Your task to perform on an android device: uninstall "Duolingo: language lessons" Image 0: 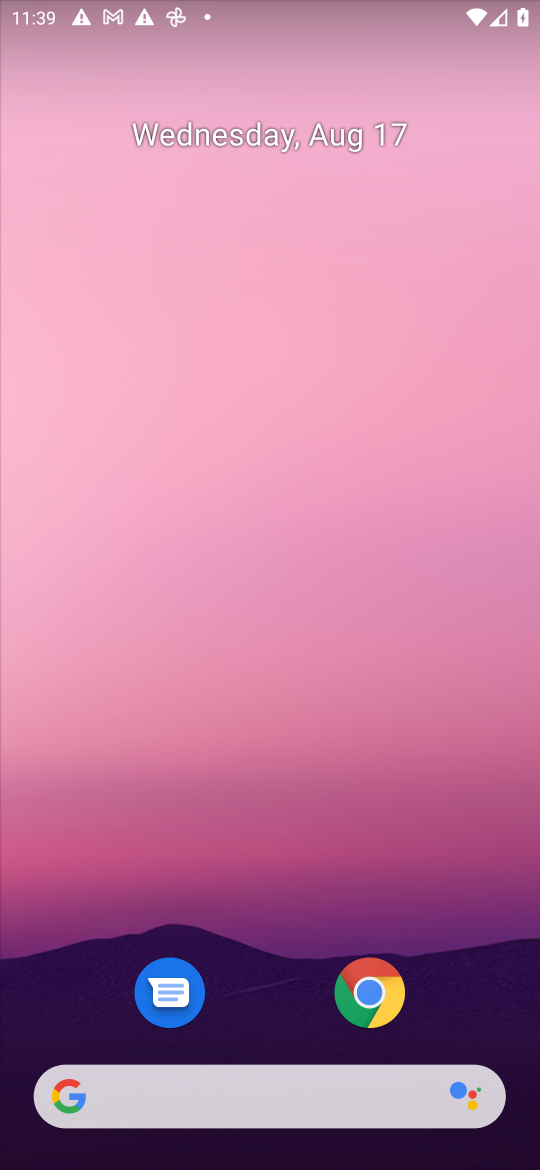
Step 0: drag from (470, 993) to (172, 71)
Your task to perform on an android device: uninstall "Duolingo: language lessons" Image 1: 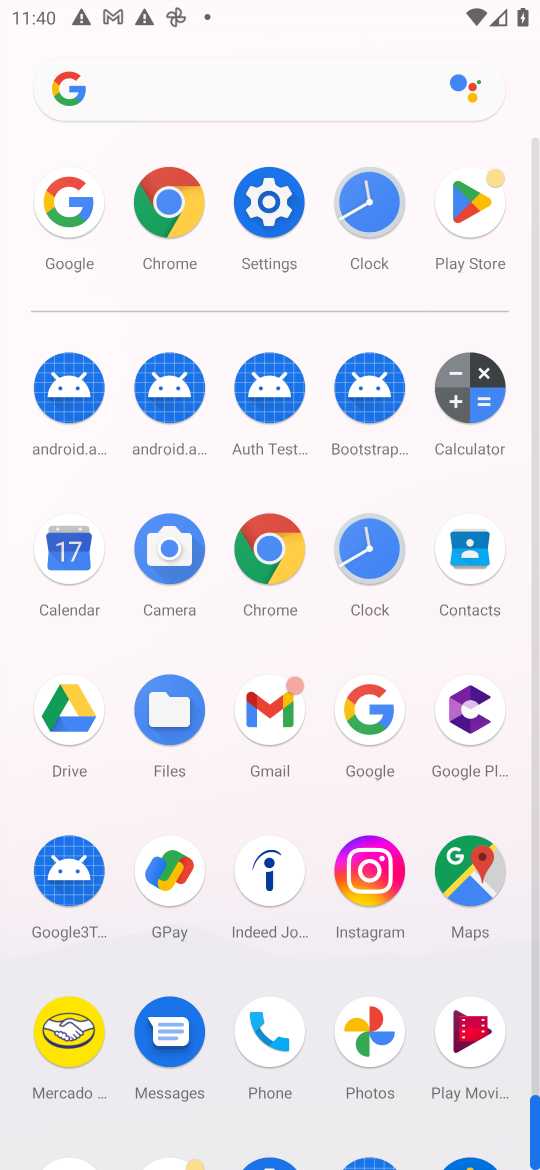
Step 1: click (484, 214)
Your task to perform on an android device: uninstall "Duolingo: language lessons" Image 2: 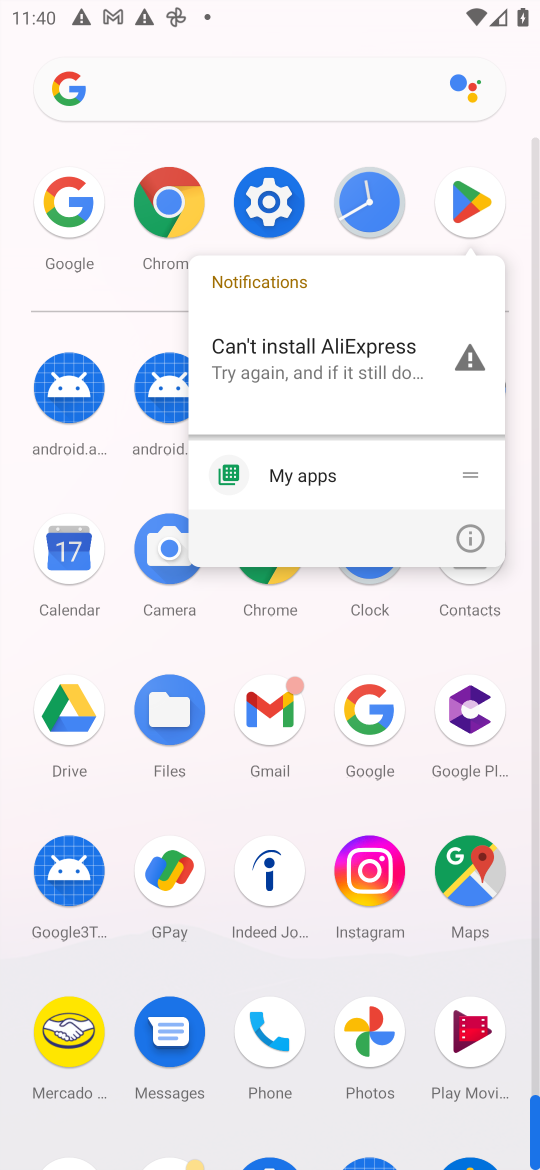
Step 2: click (477, 211)
Your task to perform on an android device: uninstall "Duolingo: language lessons" Image 3: 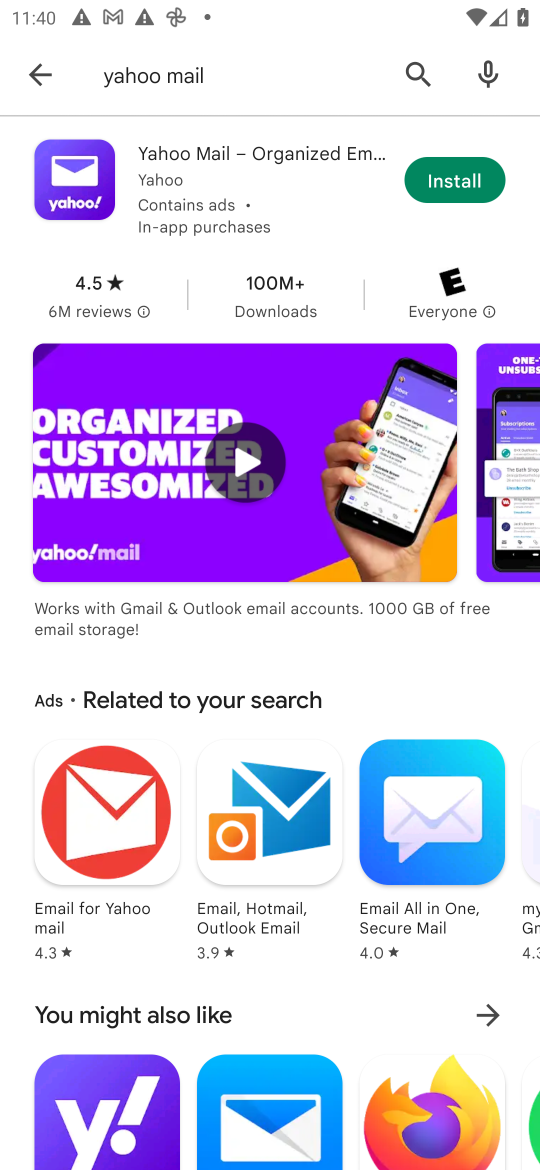
Step 3: press back button
Your task to perform on an android device: uninstall "Duolingo: language lessons" Image 4: 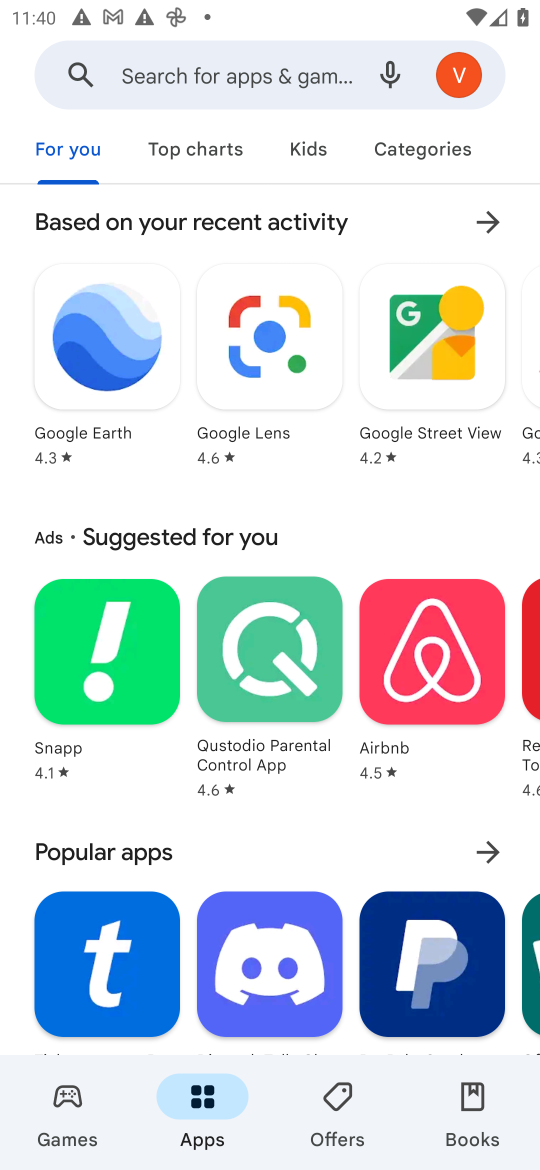
Step 4: click (174, 74)
Your task to perform on an android device: uninstall "Duolingo: language lessons" Image 5: 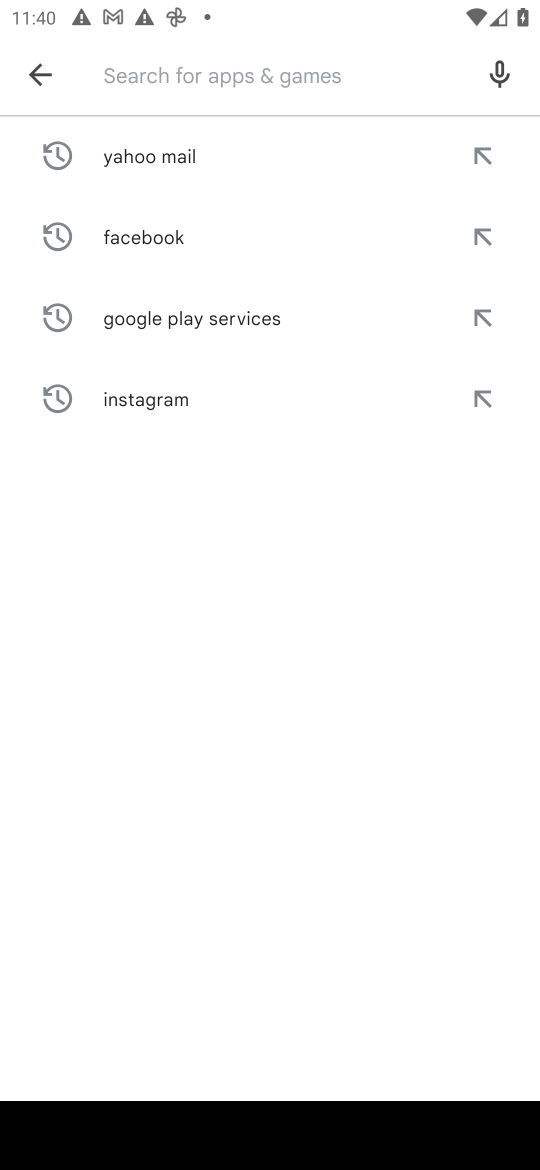
Step 5: type "Duolingo: language lessons"
Your task to perform on an android device: uninstall "Duolingo: language lessons" Image 6: 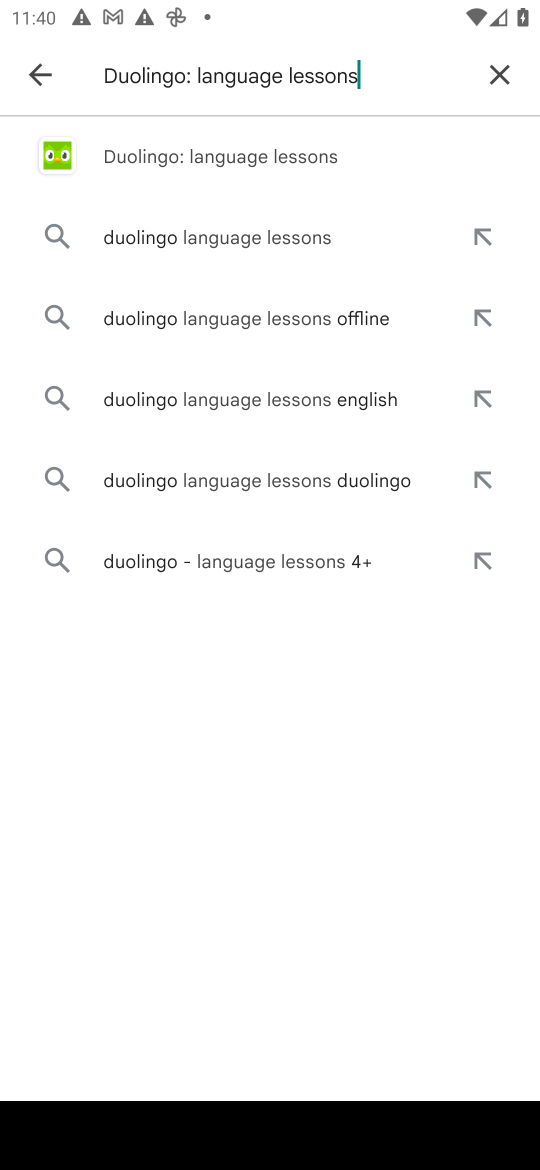
Step 6: click (157, 166)
Your task to perform on an android device: uninstall "Duolingo: language lessons" Image 7: 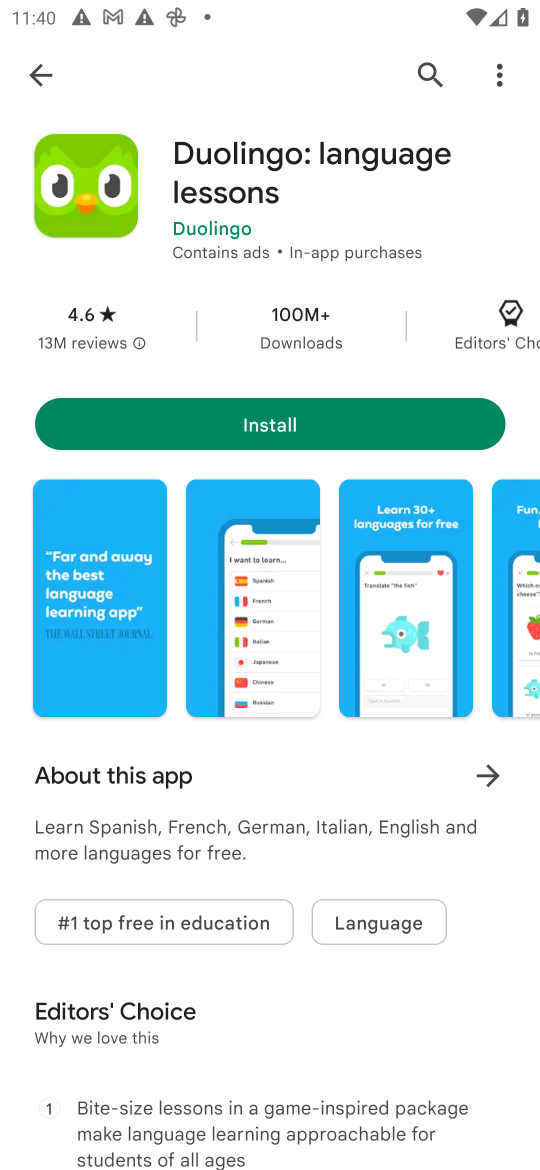
Step 7: task complete